Your task to perform on an android device: find which apps use the phone's location Image 0: 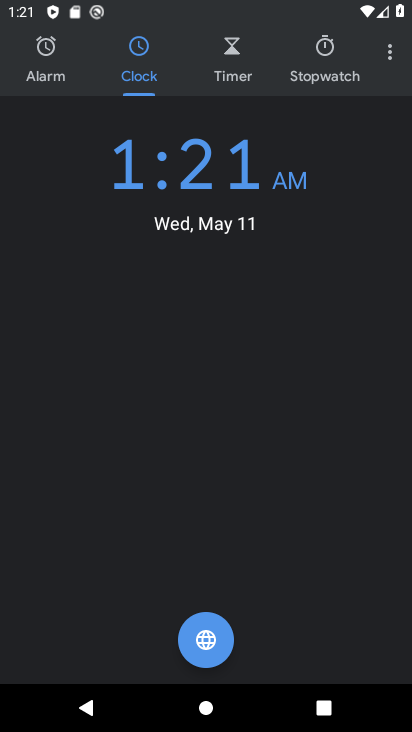
Step 0: press home button
Your task to perform on an android device: find which apps use the phone's location Image 1: 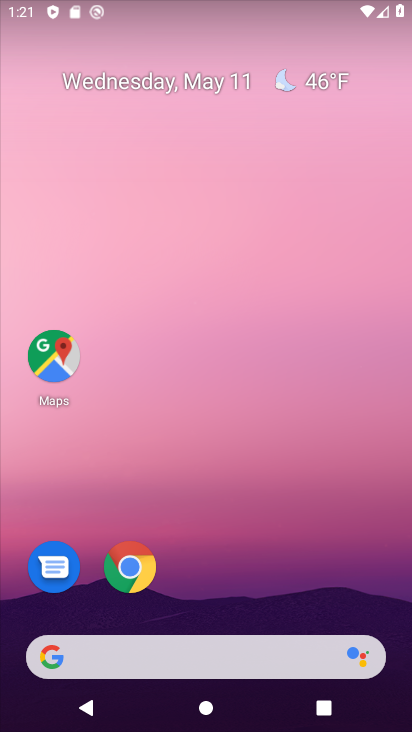
Step 1: drag from (245, 624) to (195, 4)
Your task to perform on an android device: find which apps use the phone's location Image 2: 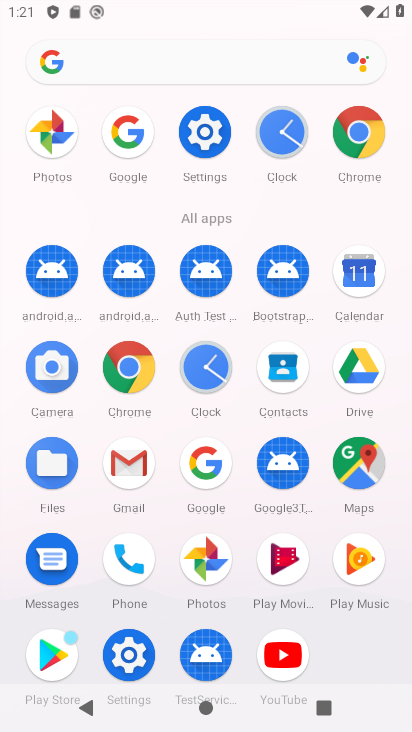
Step 2: click (199, 138)
Your task to perform on an android device: find which apps use the phone's location Image 3: 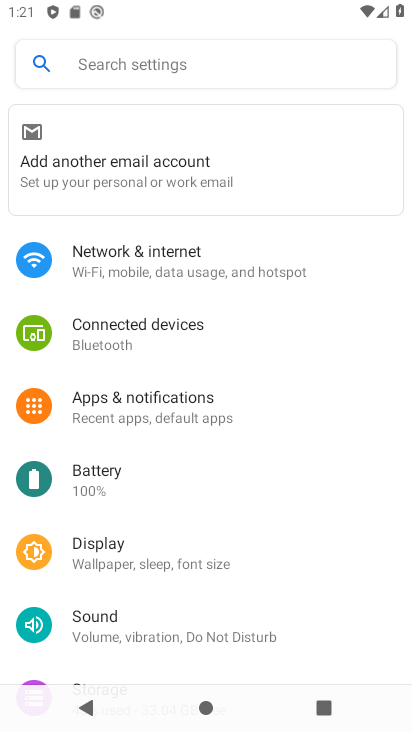
Step 3: drag from (184, 643) to (109, 73)
Your task to perform on an android device: find which apps use the phone's location Image 4: 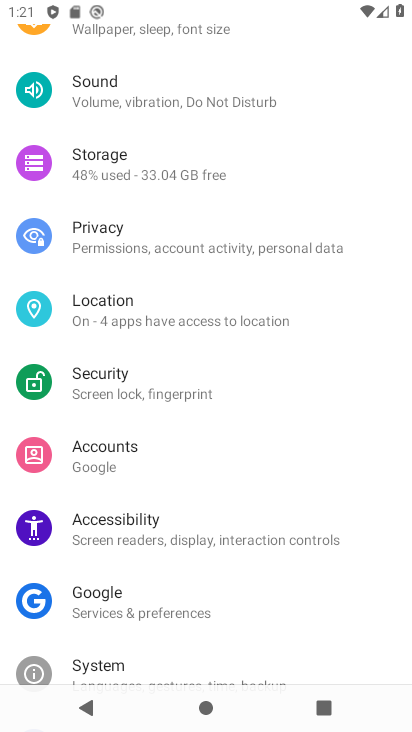
Step 4: click (85, 319)
Your task to perform on an android device: find which apps use the phone's location Image 5: 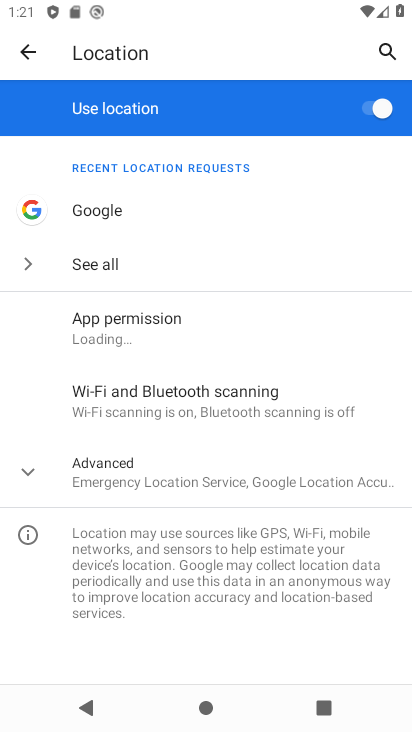
Step 5: click (138, 318)
Your task to perform on an android device: find which apps use the phone's location Image 6: 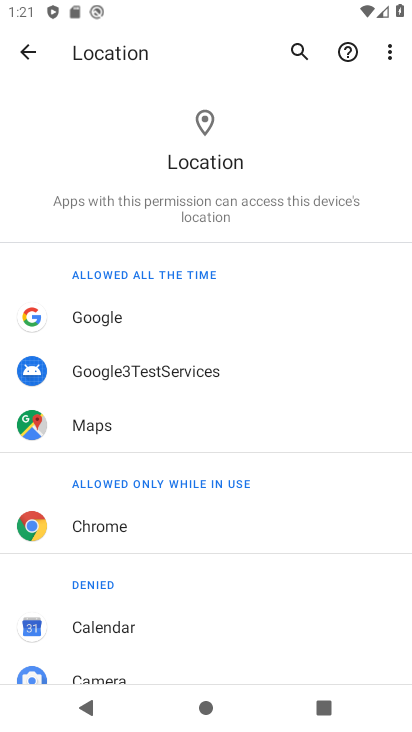
Step 6: task complete